Your task to perform on an android device: What's the weather going to be this weekend? Image 0: 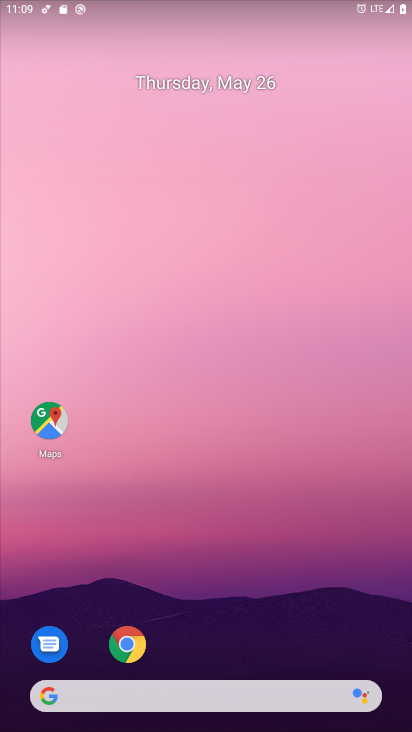
Step 0: click (235, 696)
Your task to perform on an android device: What's the weather going to be this weekend? Image 1: 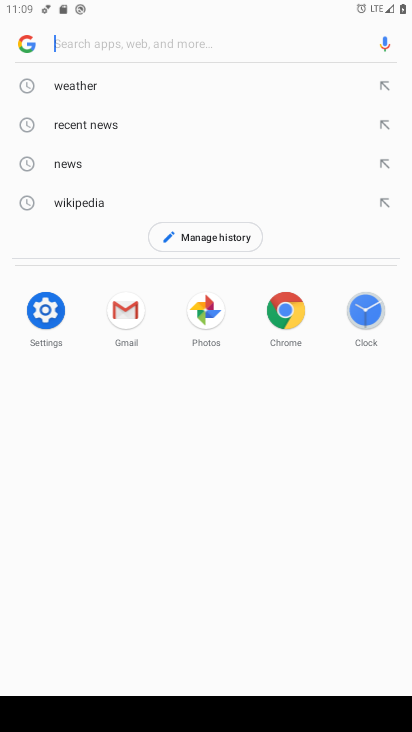
Step 1: click (88, 83)
Your task to perform on an android device: What's the weather going to be this weekend? Image 2: 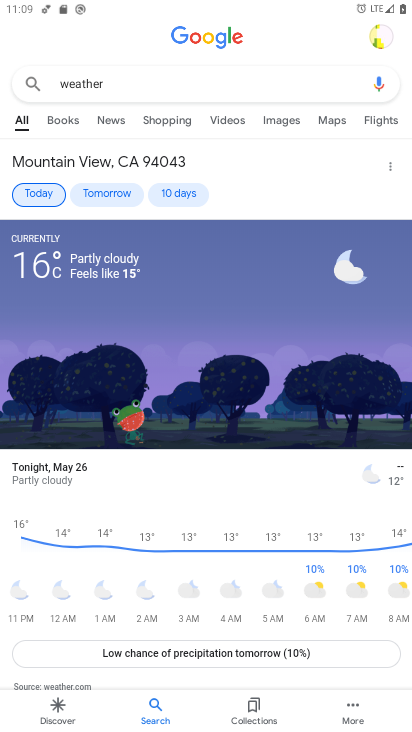
Step 2: click (184, 199)
Your task to perform on an android device: What's the weather going to be this weekend? Image 3: 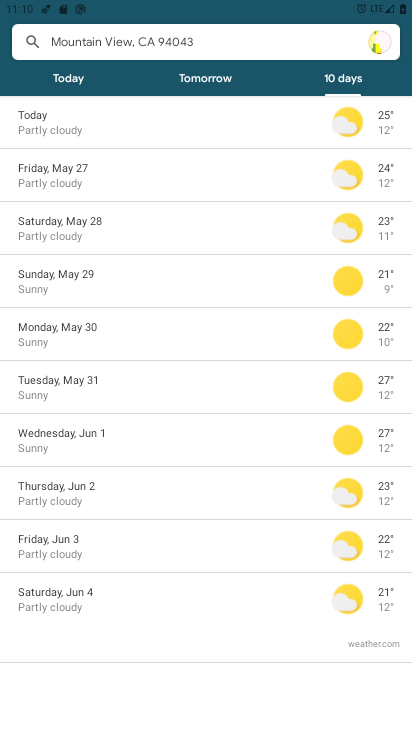
Step 3: click (143, 228)
Your task to perform on an android device: What's the weather going to be this weekend? Image 4: 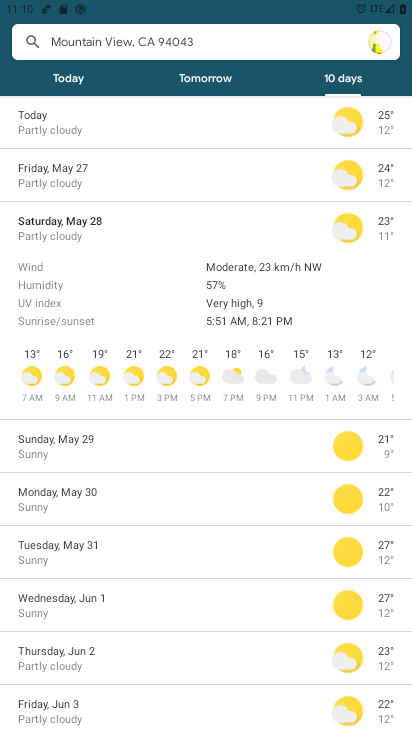
Step 4: task complete